Your task to perform on an android device: uninstall "Google Pay: Save, Pay, Manage" Image 0: 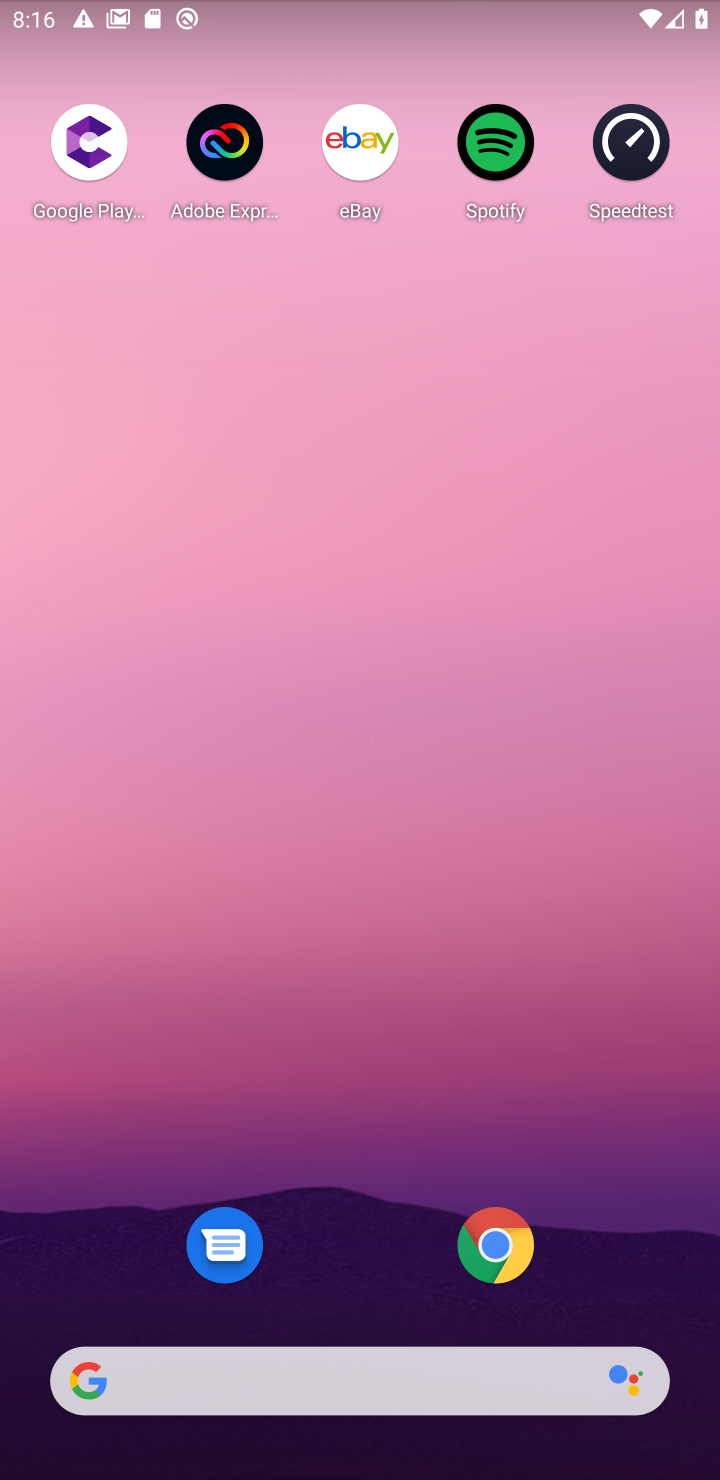
Step 0: drag from (326, 1270) to (229, 294)
Your task to perform on an android device: uninstall "Google Pay: Save, Pay, Manage" Image 1: 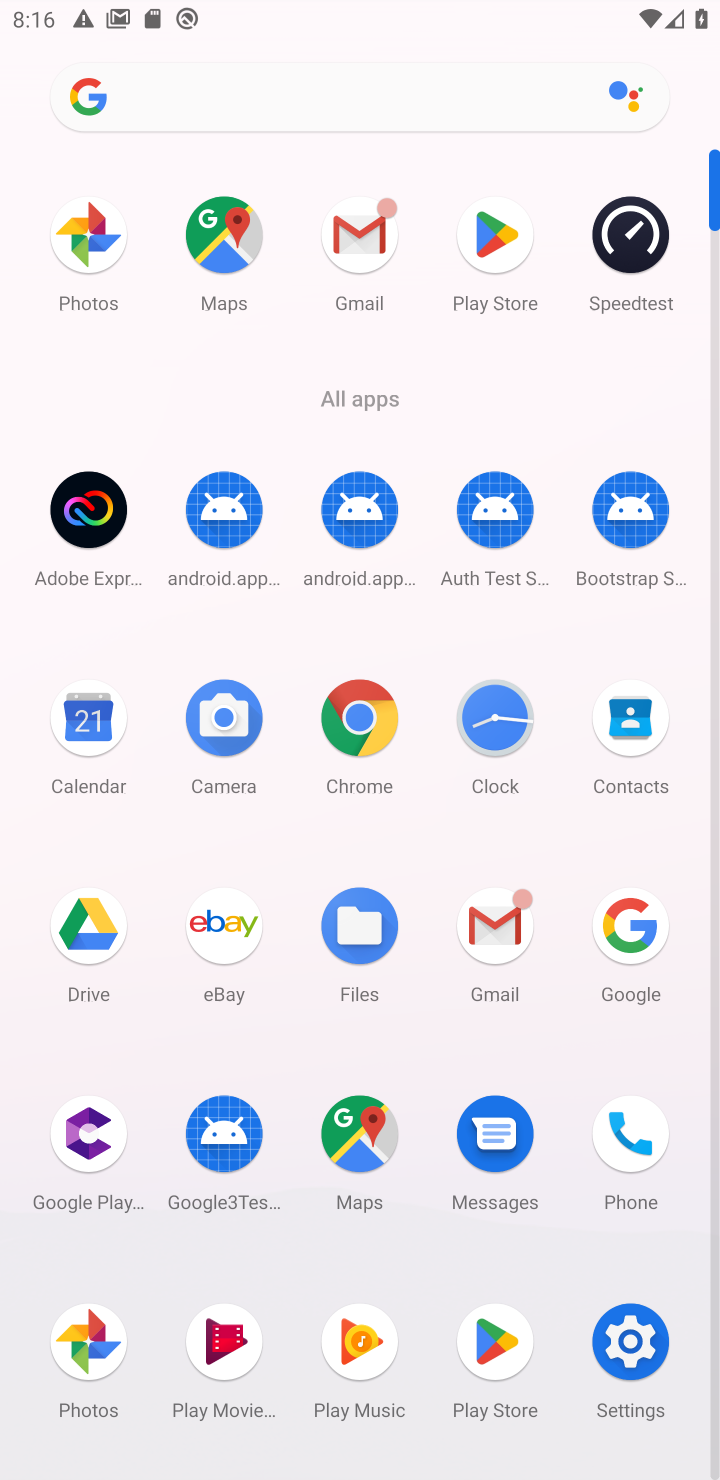
Step 1: click (481, 1341)
Your task to perform on an android device: uninstall "Google Pay: Save, Pay, Manage" Image 2: 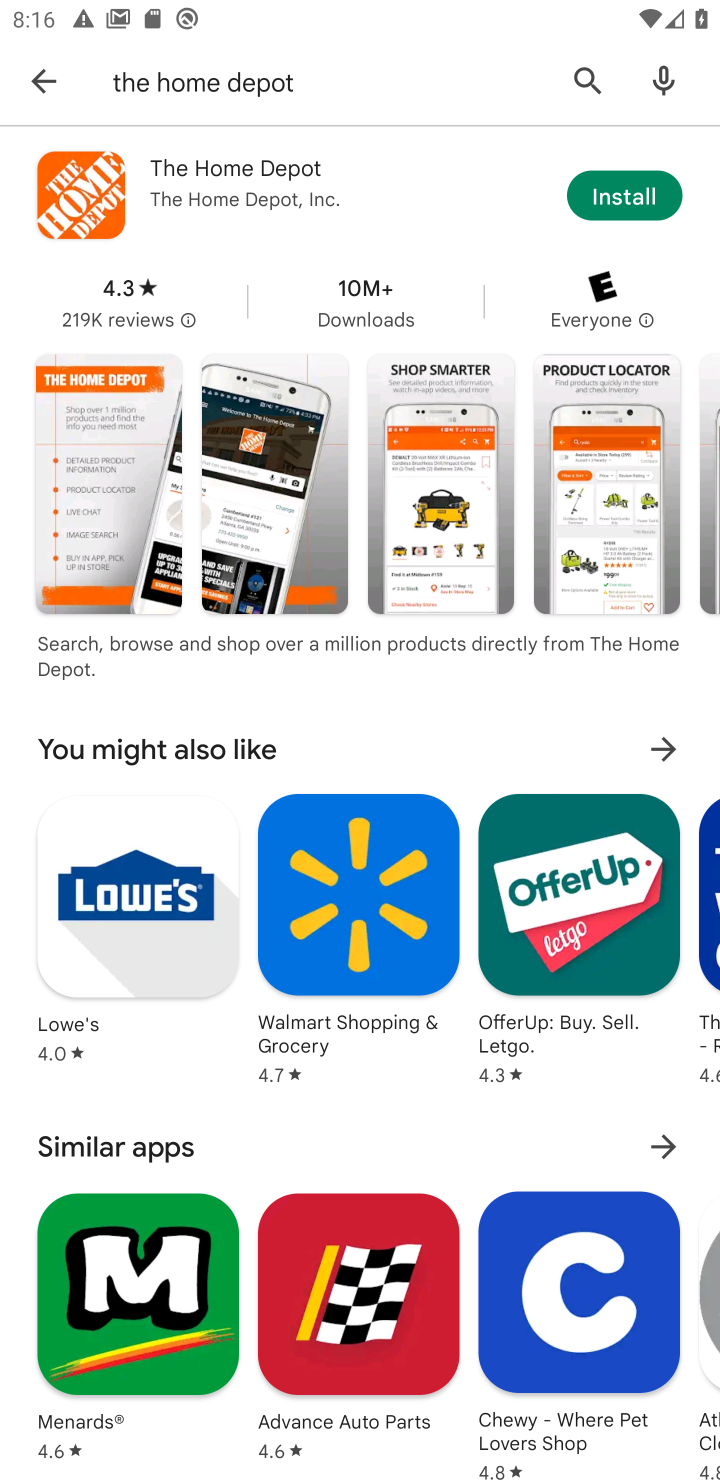
Step 2: click (42, 78)
Your task to perform on an android device: uninstall "Google Pay: Save, Pay, Manage" Image 3: 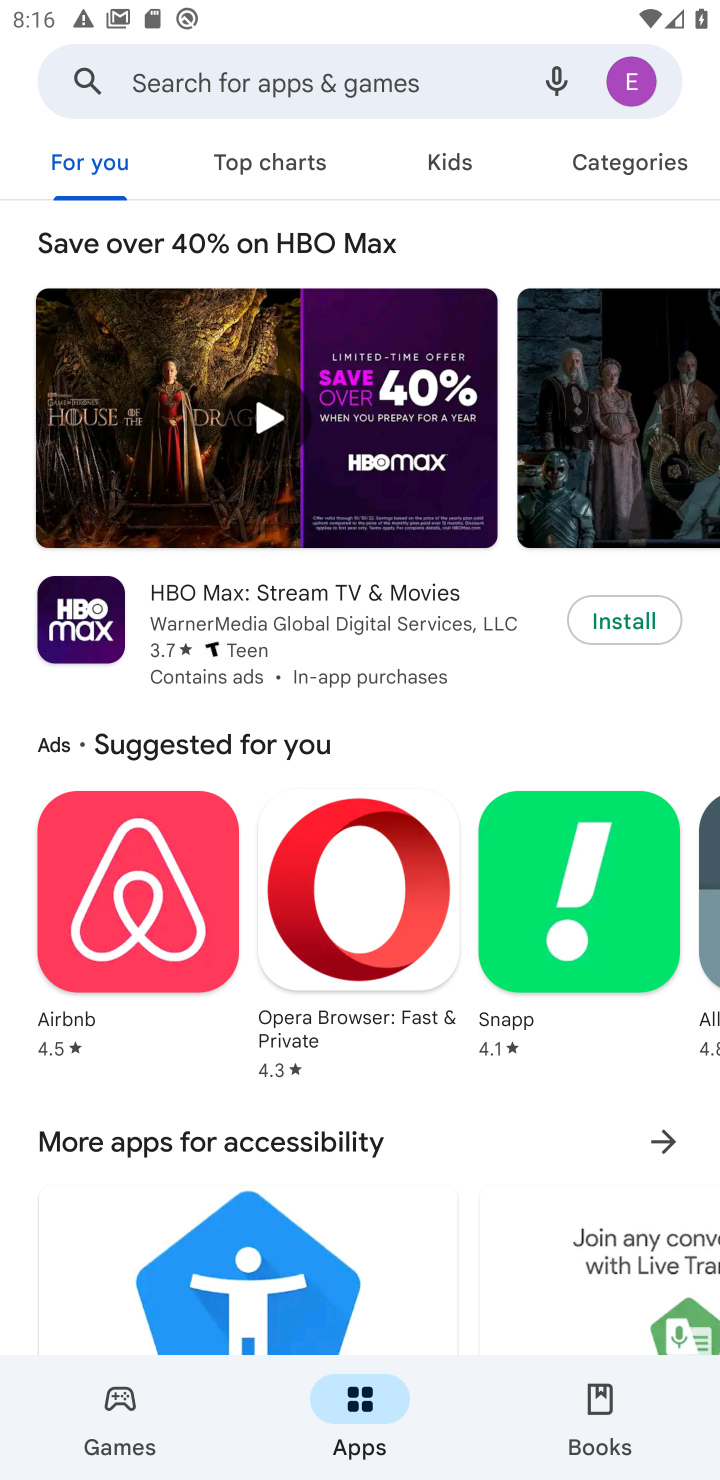
Step 3: click (224, 65)
Your task to perform on an android device: uninstall "Google Pay: Save, Pay, Manage" Image 4: 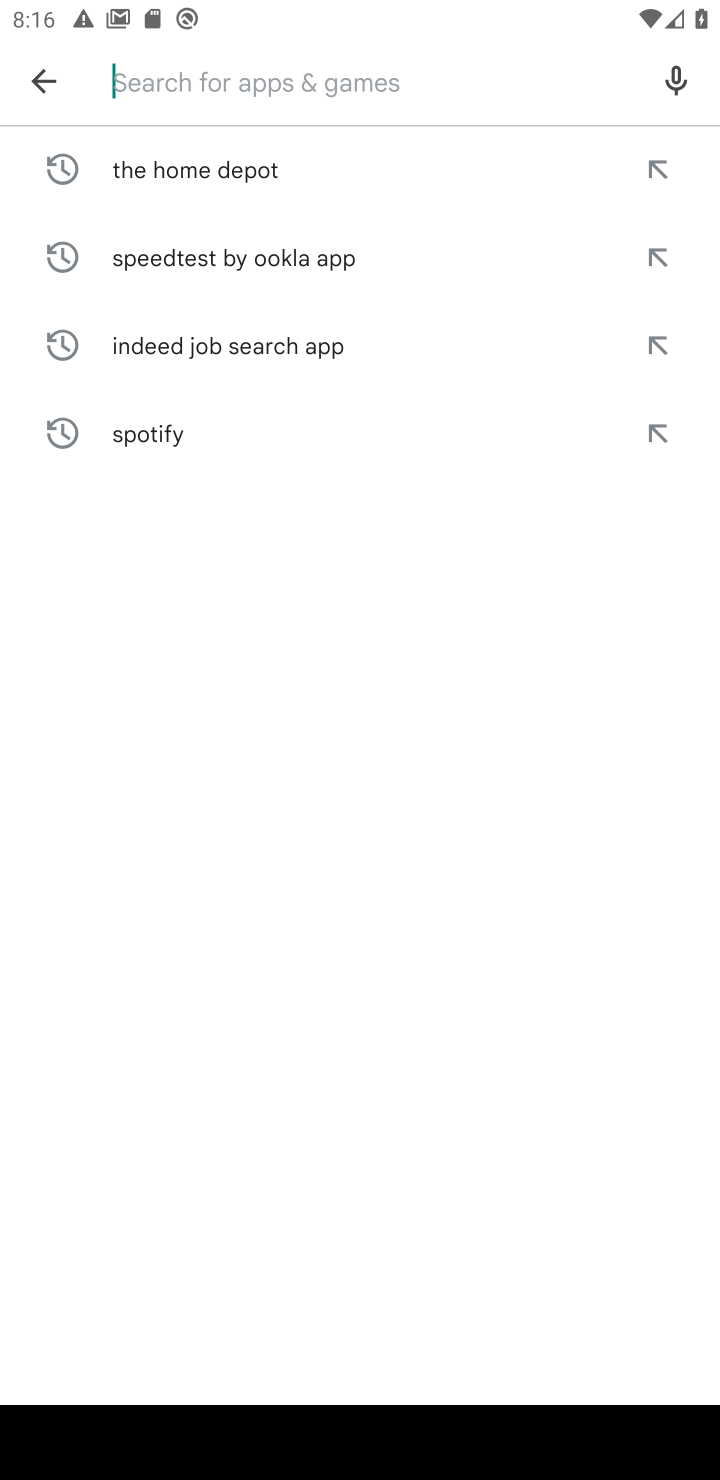
Step 4: type "Google Pay: Save, Pay, Manage"
Your task to perform on an android device: uninstall "Google Pay: Save, Pay, Manage" Image 5: 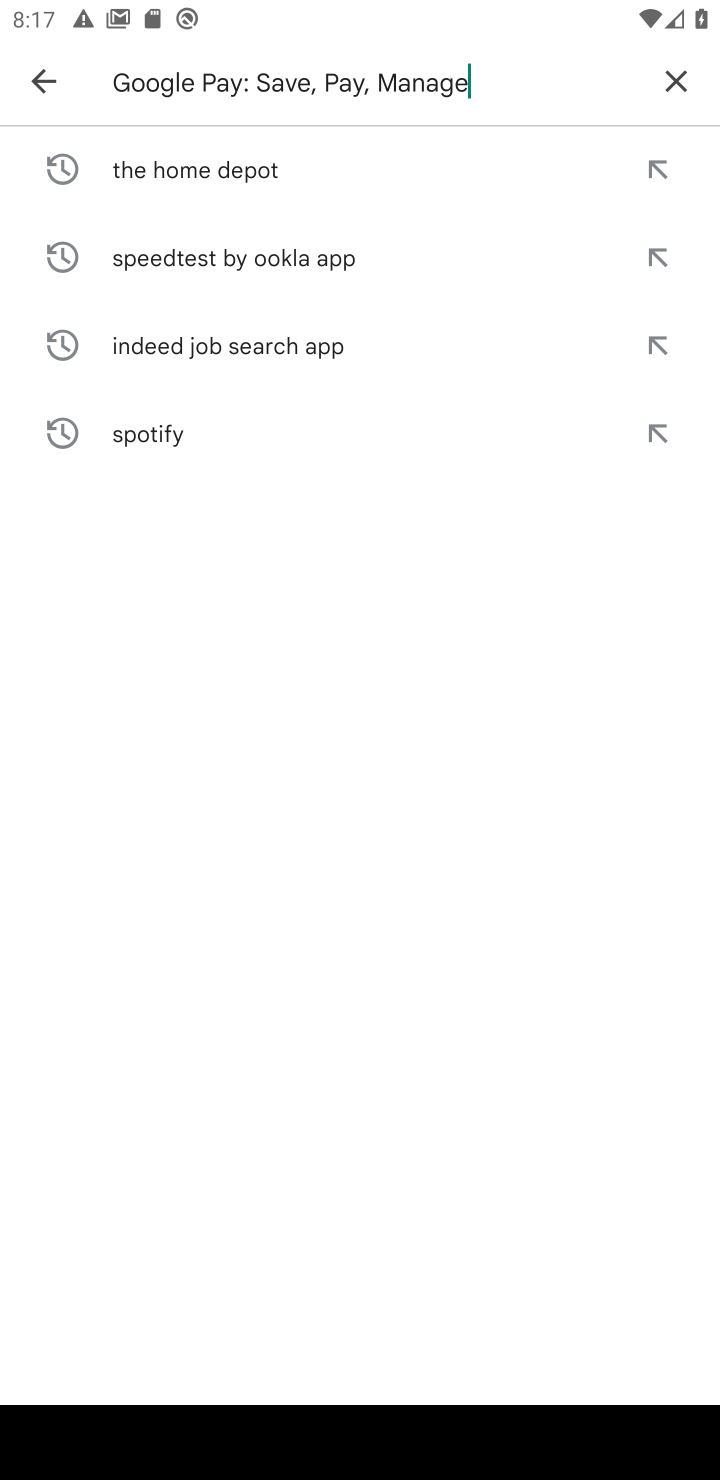
Step 5: type ""
Your task to perform on an android device: uninstall "Google Pay: Save, Pay, Manage" Image 6: 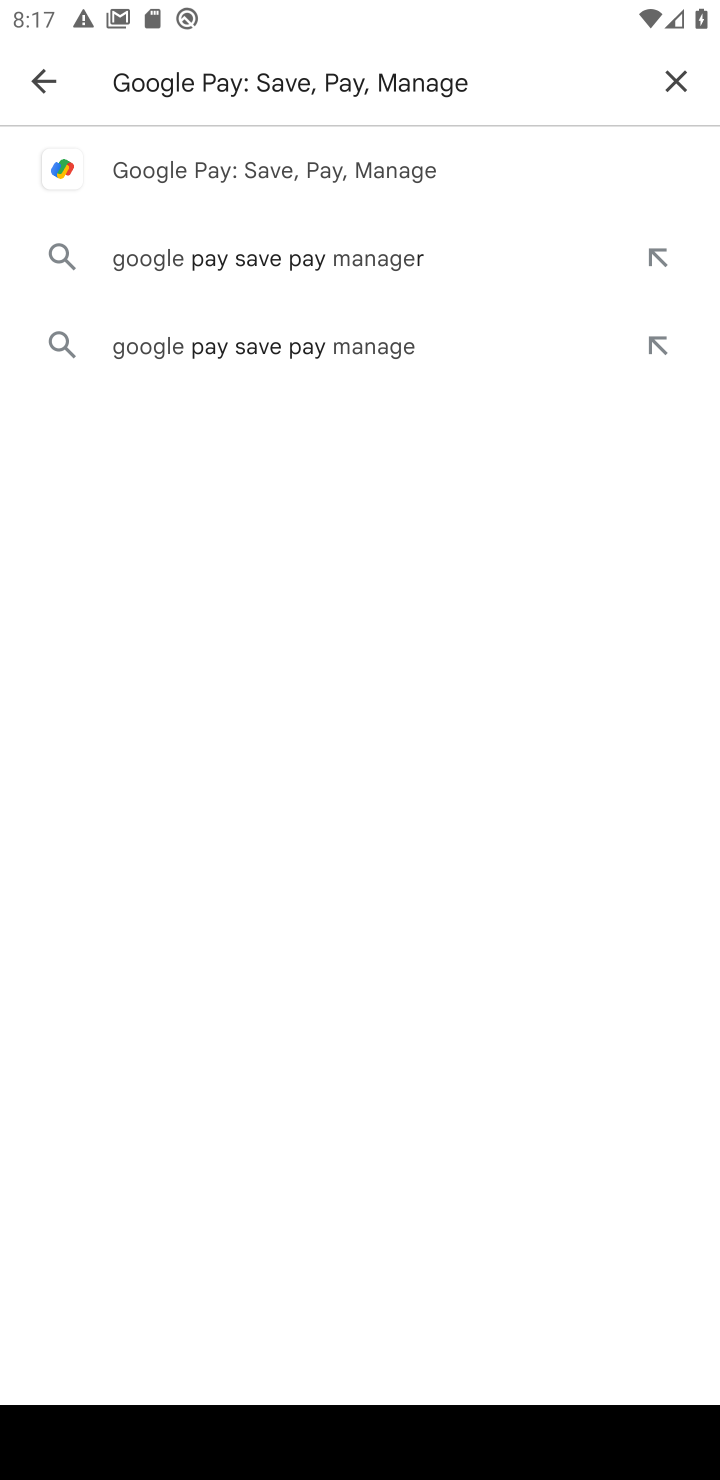
Step 6: click (218, 146)
Your task to perform on an android device: uninstall "Google Pay: Save, Pay, Manage" Image 7: 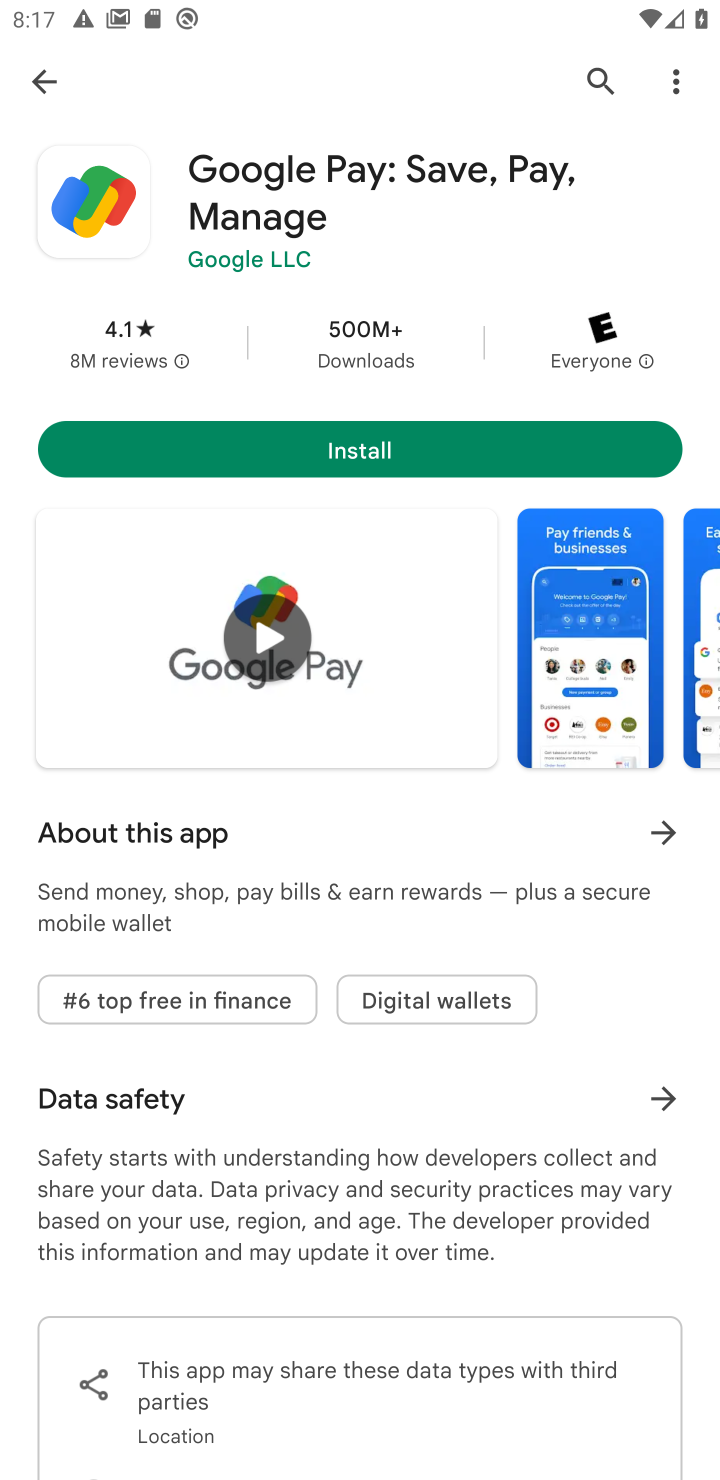
Step 7: task complete